Your task to perform on an android device: set the stopwatch Image 0: 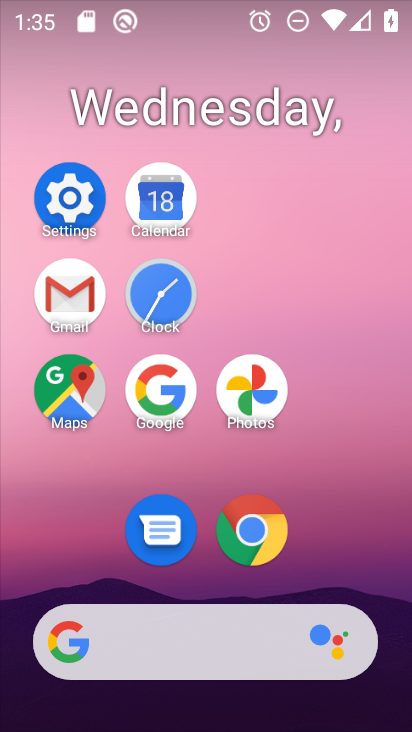
Step 0: click (166, 311)
Your task to perform on an android device: set the stopwatch Image 1: 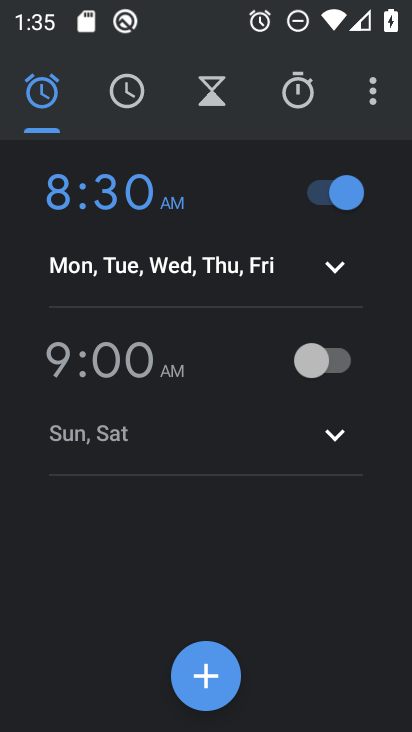
Step 1: click (286, 85)
Your task to perform on an android device: set the stopwatch Image 2: 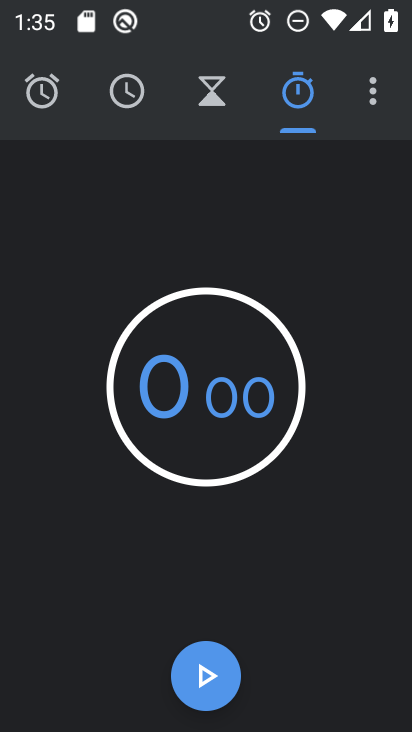
Step 2: click (236, 681)
Your task to perform on an android device: set the stopwatch Image 3: 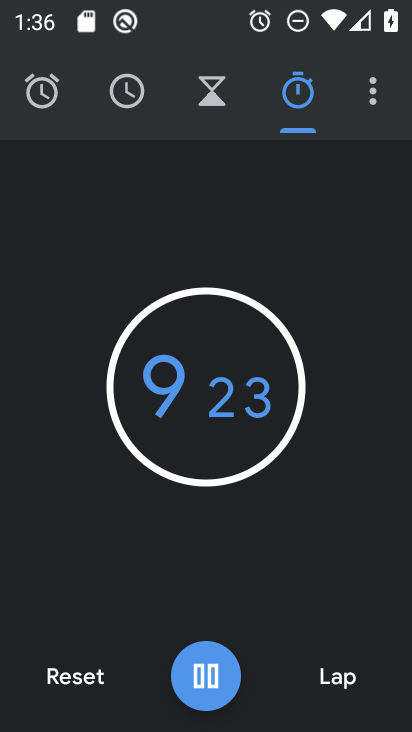
Step 3: task complete